Your task to perform on an android device: turn notification dots on Image 0: 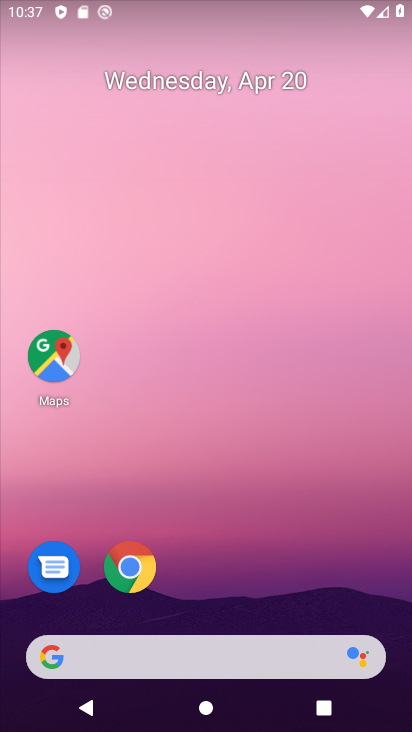
Step 0: drag from (248, 594) to (183, 117)
Your task to perform on an android device: turn notification dots on Image 1: 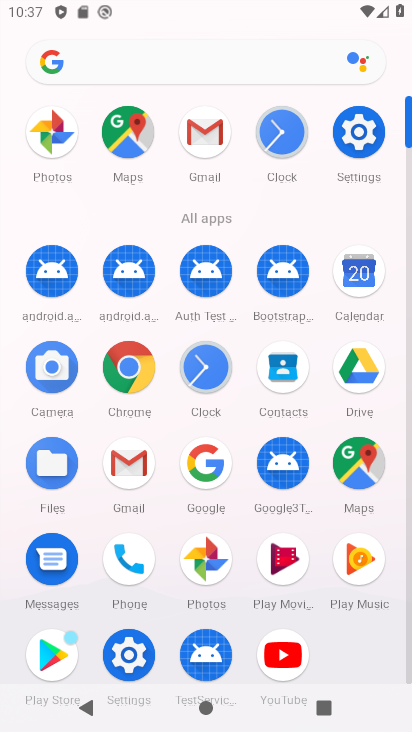
Step 1: click (349, 133)
Your task to perform on an android device: turn notification dots on Image 2: 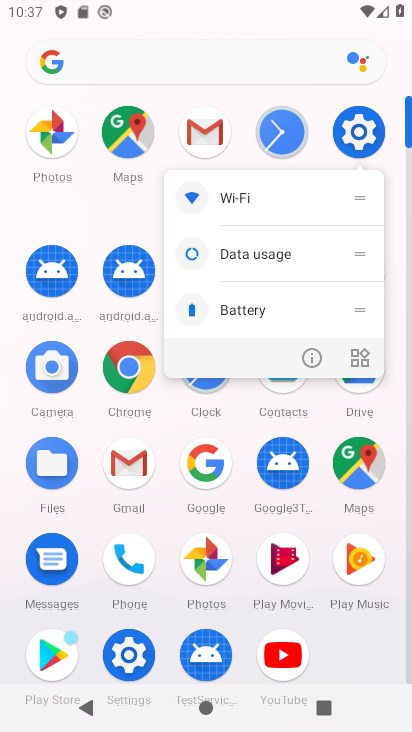
Step 2: click (354, 119)
Your task to perform on an android device: turn notification dots on Image 3: 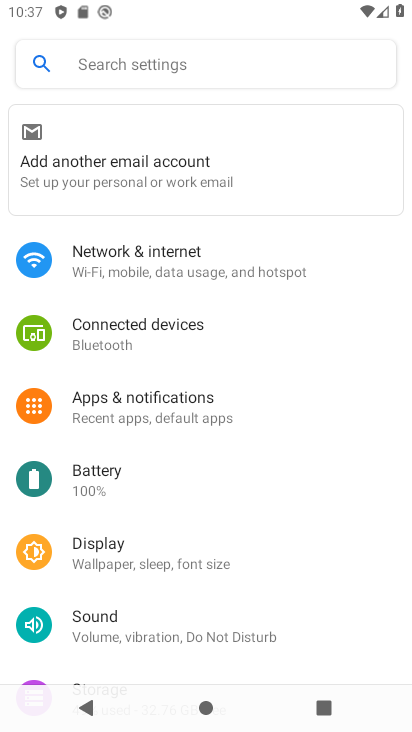
Step 3: click (199, 402)
Your task to perform on an android device: turn notification dots on Image 4: 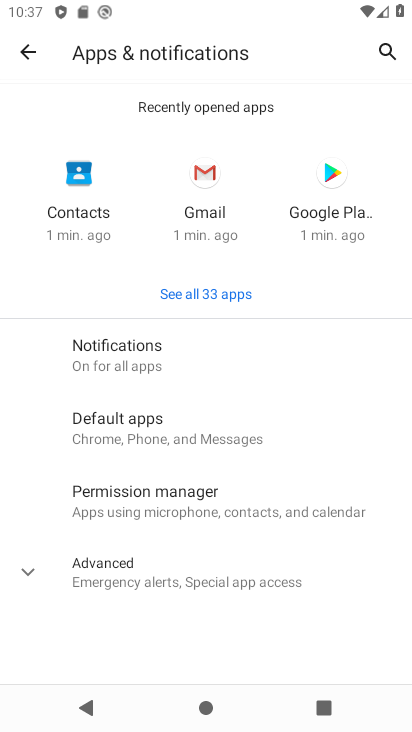
Step 4: click (132, 338)
Your task to perform on an android device: turn notification dots on Image 5: 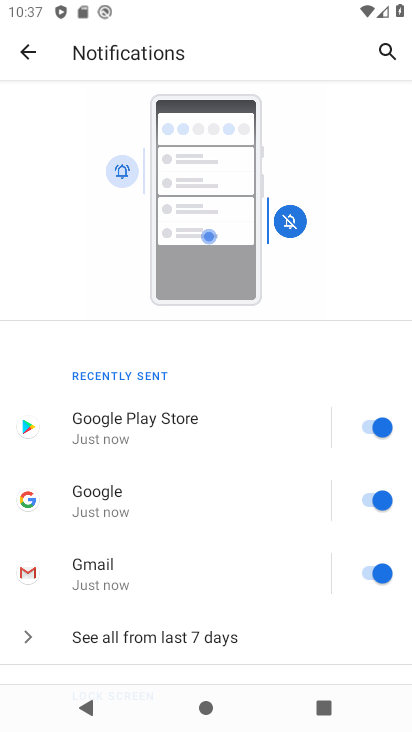
Step 5: drag from (200, 536) to (174, 282)
Your task to perform on an android device: turn notification dots on Image 6: 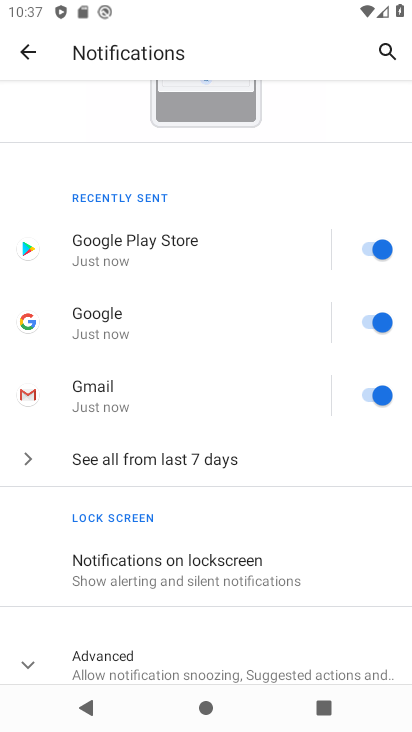
Step 6: drag from (204, 574) to (166, 265)
Your task to perform on an android device: turn notification dots on Image 7: 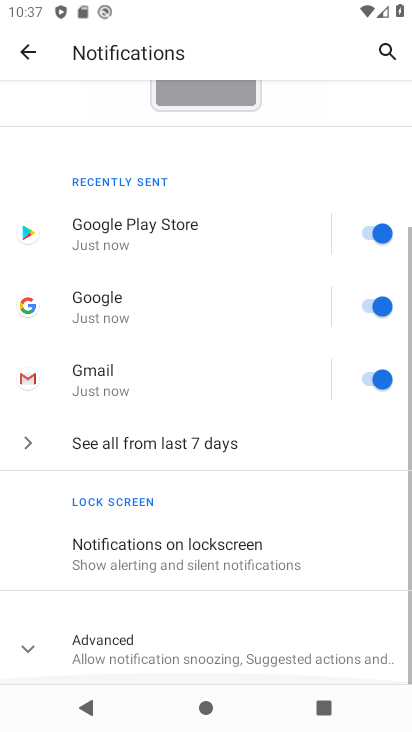
Step 7: click (178, 649)
Your task to perform on an android device: turn notification dots on Image 8: 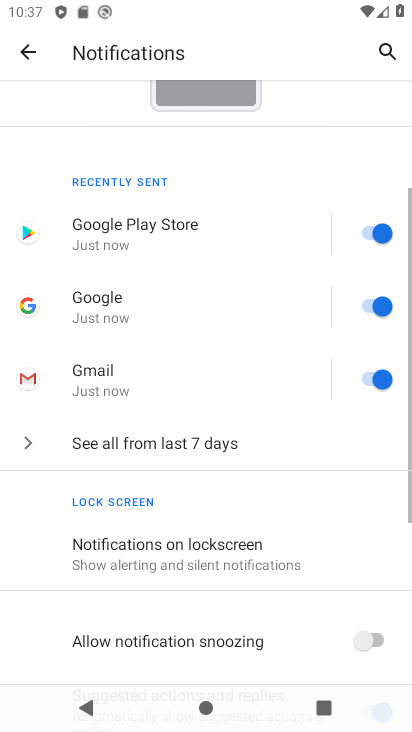
Step 8: task complete